Your task to perform on an android device: turn off picture-in-picture Image 0: 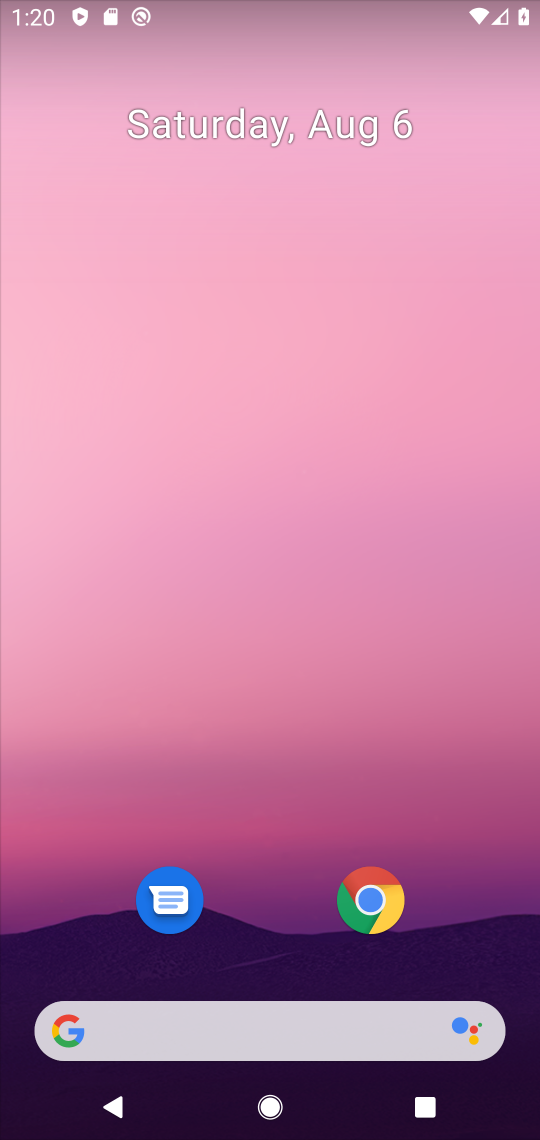
Step 0: press home button
Your task to perform on an android device: turn off picture-in-picture Image 1: 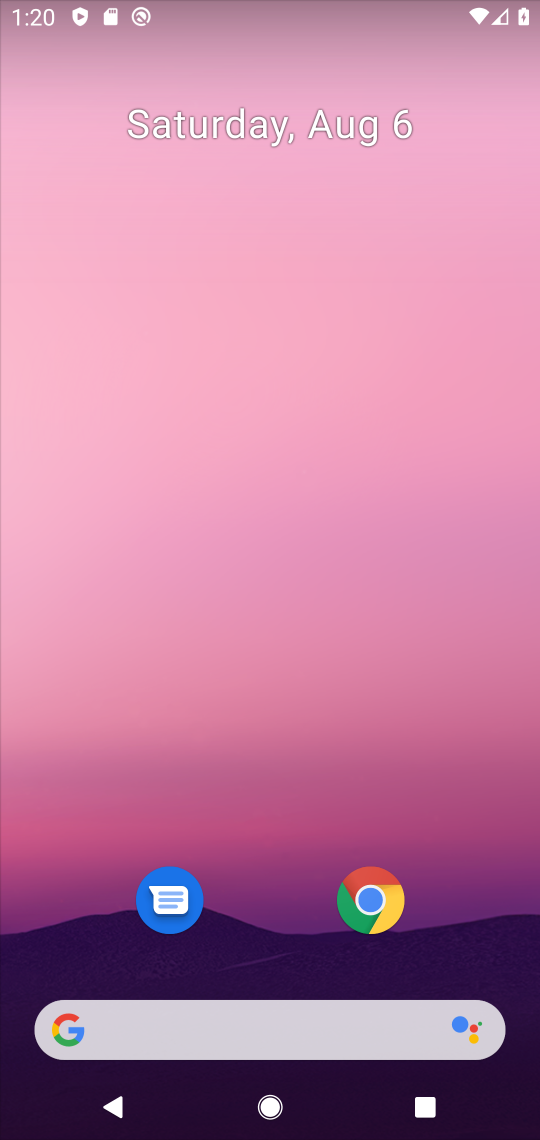
Step 1: click (364, 896)
Your task to perform on an android device: turn off picture-in-picture Image 2: 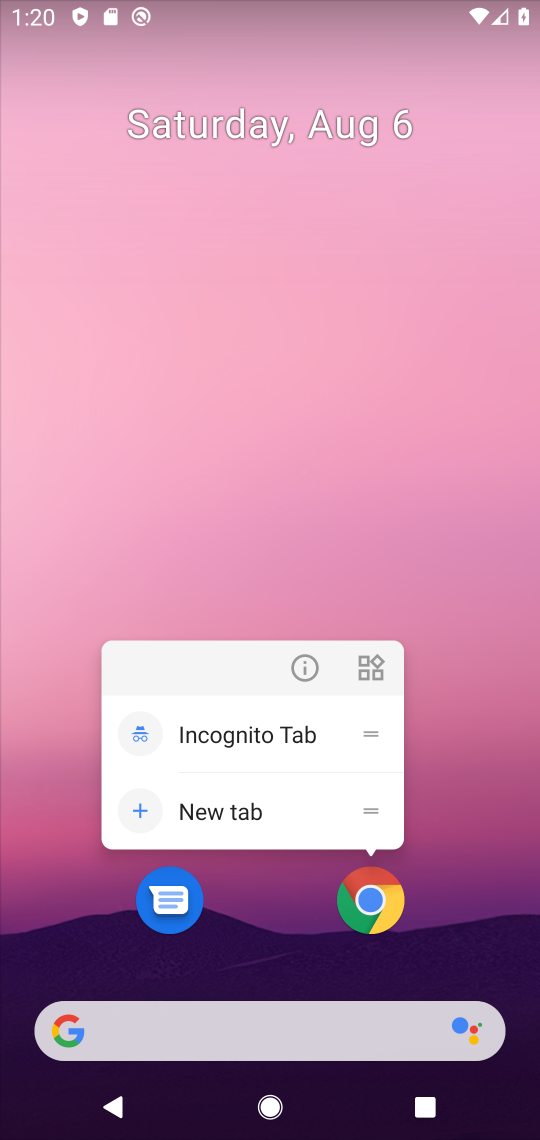
Step 2: click (305, 664)
Your task to perform on an android device: turn off picture-in-picture Image 3: 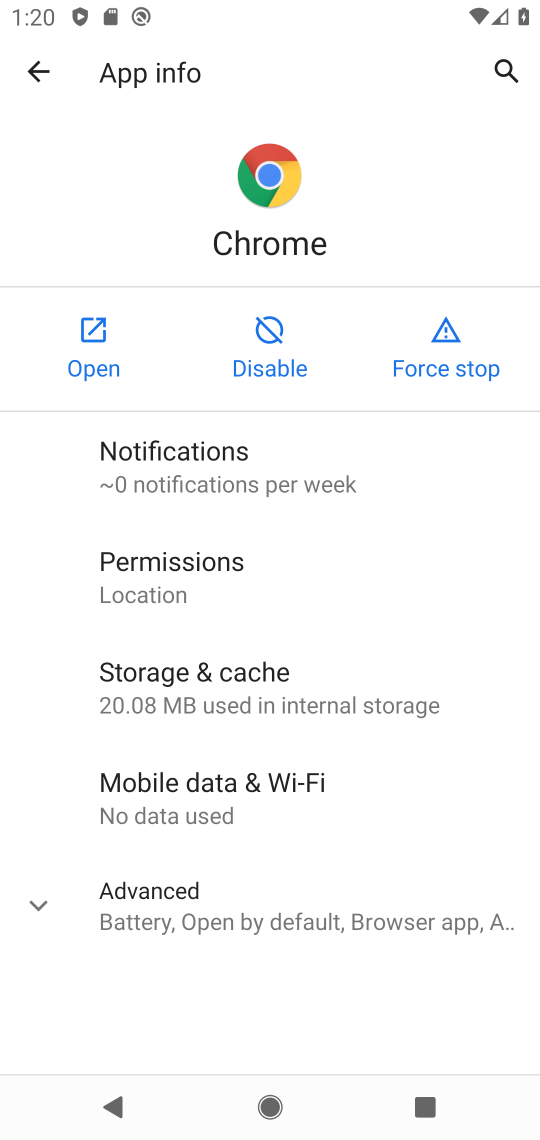
Step 3: click (46, 907)
Your task to perform on an android device: turn off picture-in-picture Image 4: 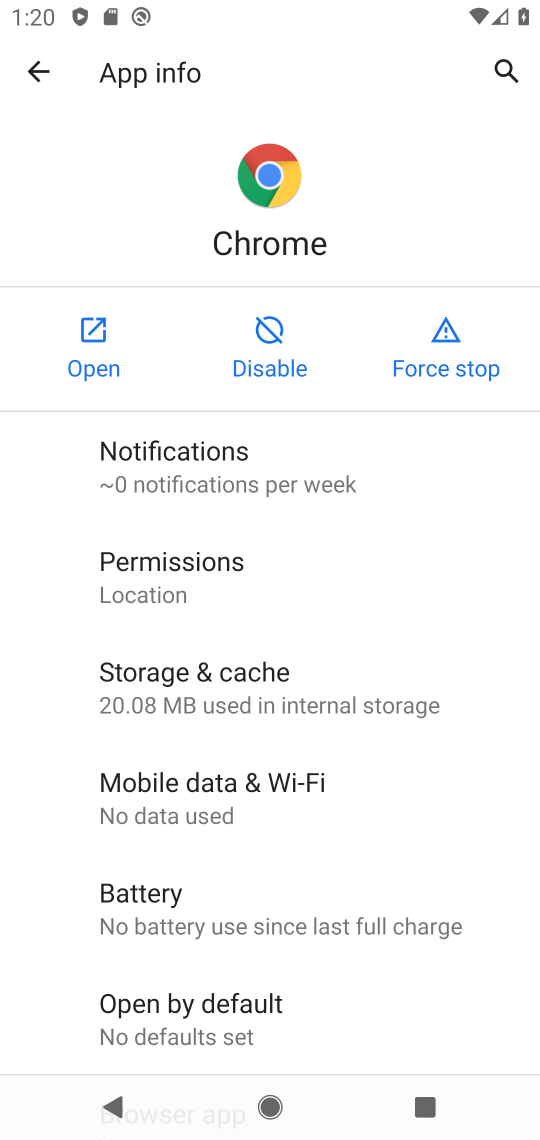
Step 4: drag from (272, 970) to (201, 418)
Your task to perform on an android device: turn off picture-in-picture Image 5: 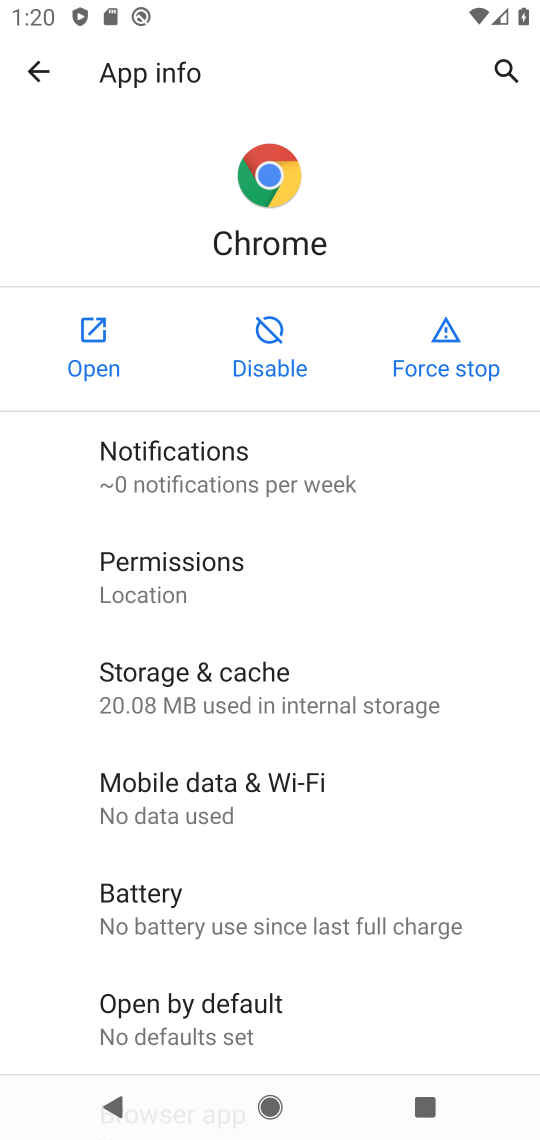
Step 5: drag from (77, 1024) to (78, 280)
Your task to perform on an android device: turn off picture-in-picture Image 6: 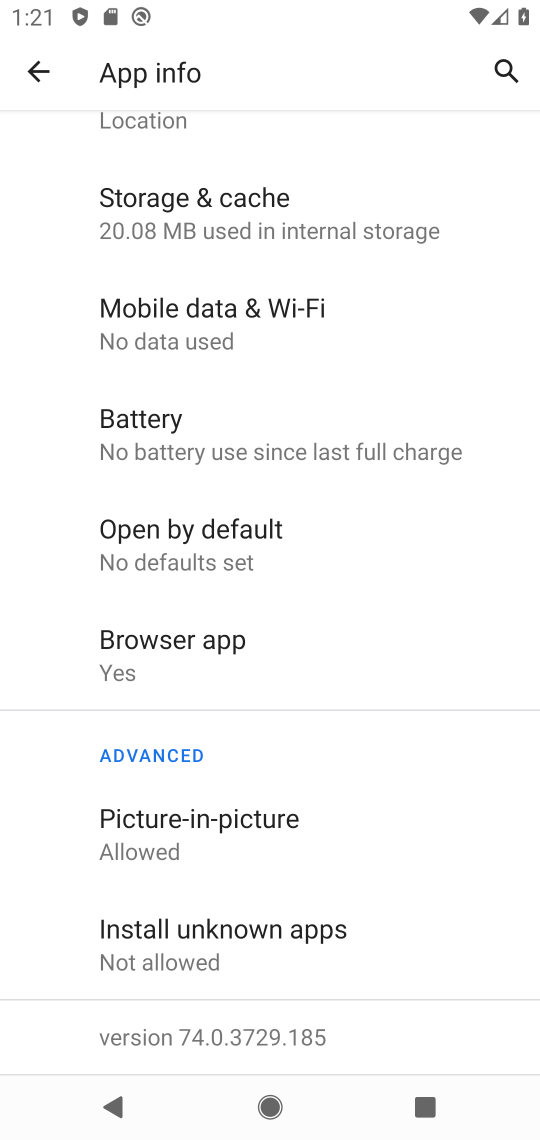
Step 6: click (210, 837)
Your task to perform on an android device: turn off picture-in-picture Image 7: 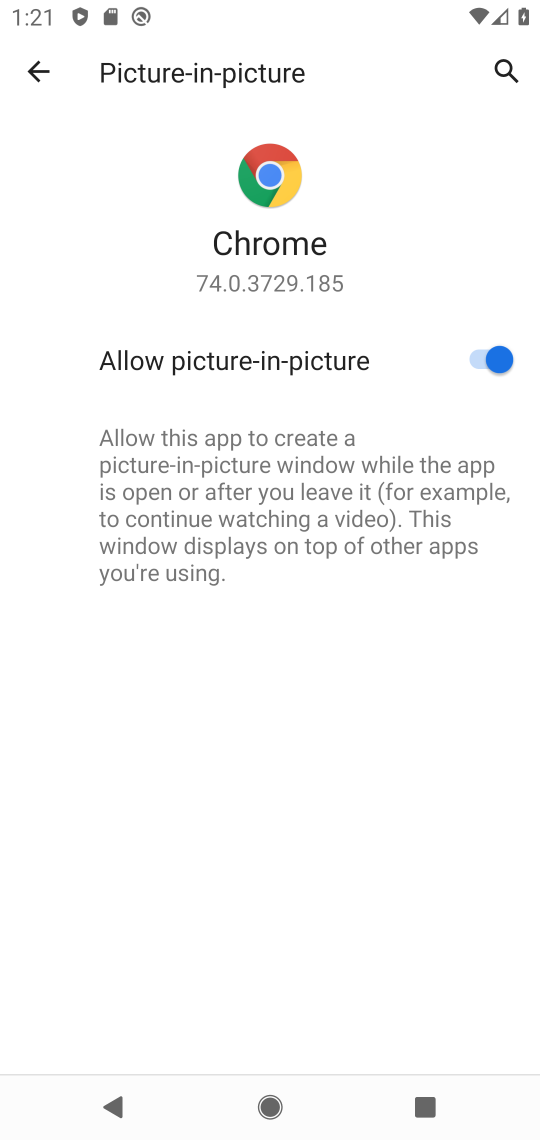
Step 7: click (496, 354)
Your task to perform on an android device: turn off picture-in-picture Image 8: 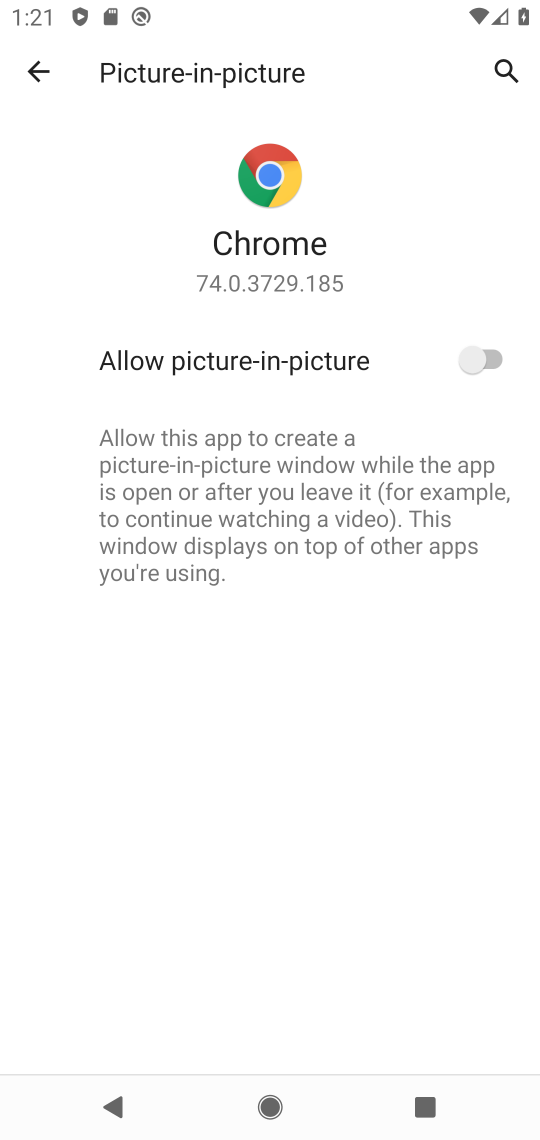
Step 8: task complete